Your task to perform on an android device: Go to eBay Image 0: 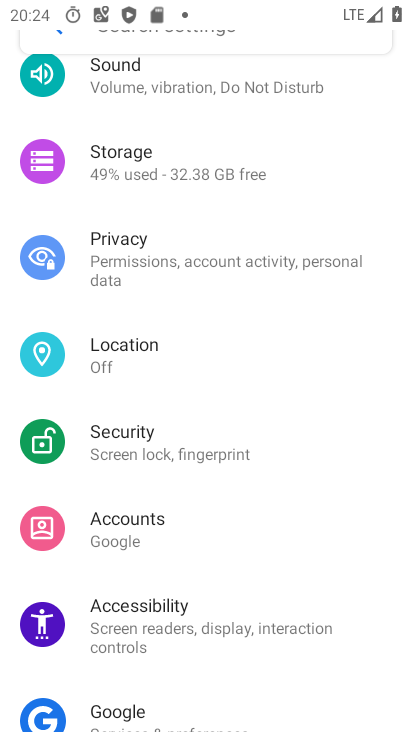
Step 0: press home button
Your task to perform on an android device: Go to eBay Image 1: 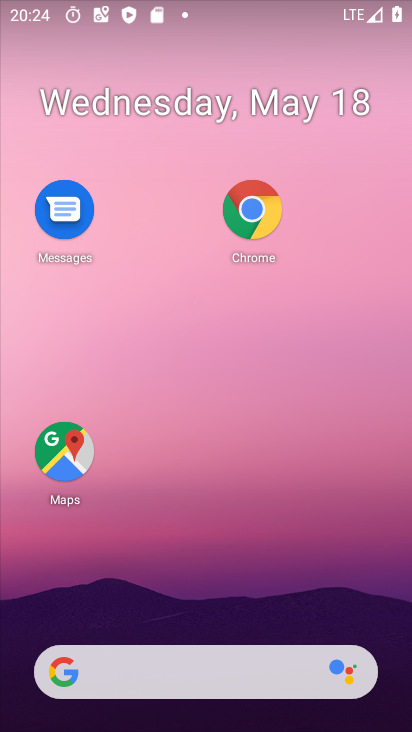
Step 1: click (243, 206)
Your task to perform on an android device: Go to eBay Image 2: 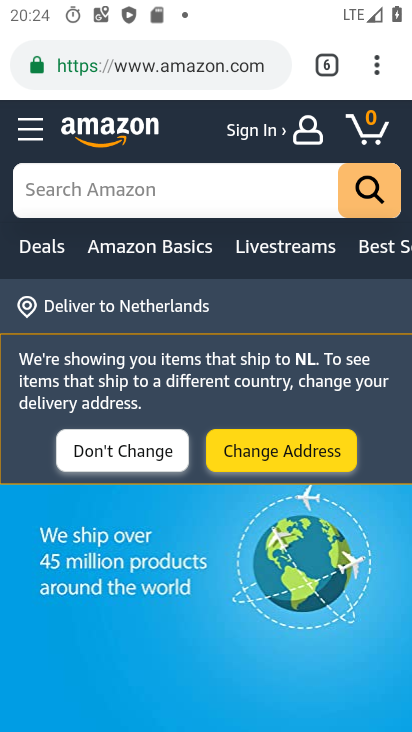
Step 2: click (174, 74)
Your task to perform on an android device: Go to eBay Image 3: 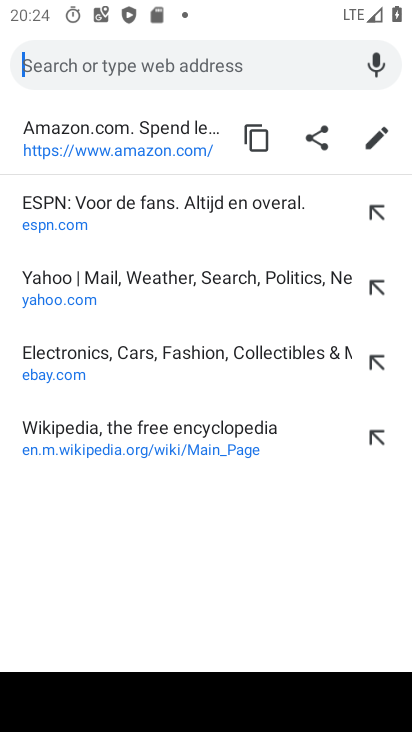
Step 3: click (105, 374)
Your task to perform on an android device: Go to eBay Image 4: 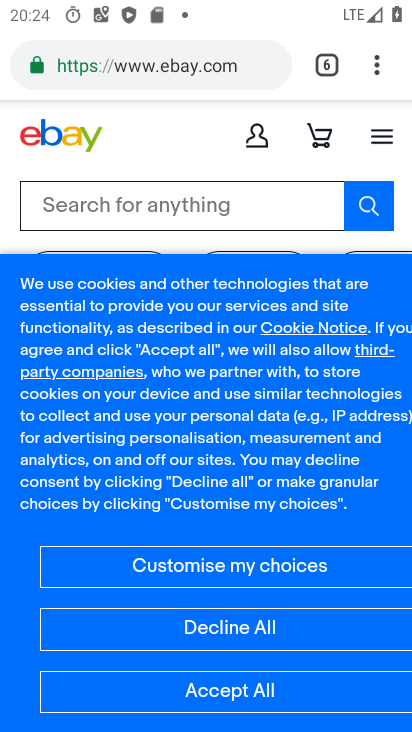
Step 4: task complete